Your task to perform on an android device: Add beats solo 3 to the cart on bestbuy.com, then select checkout. Image 0: 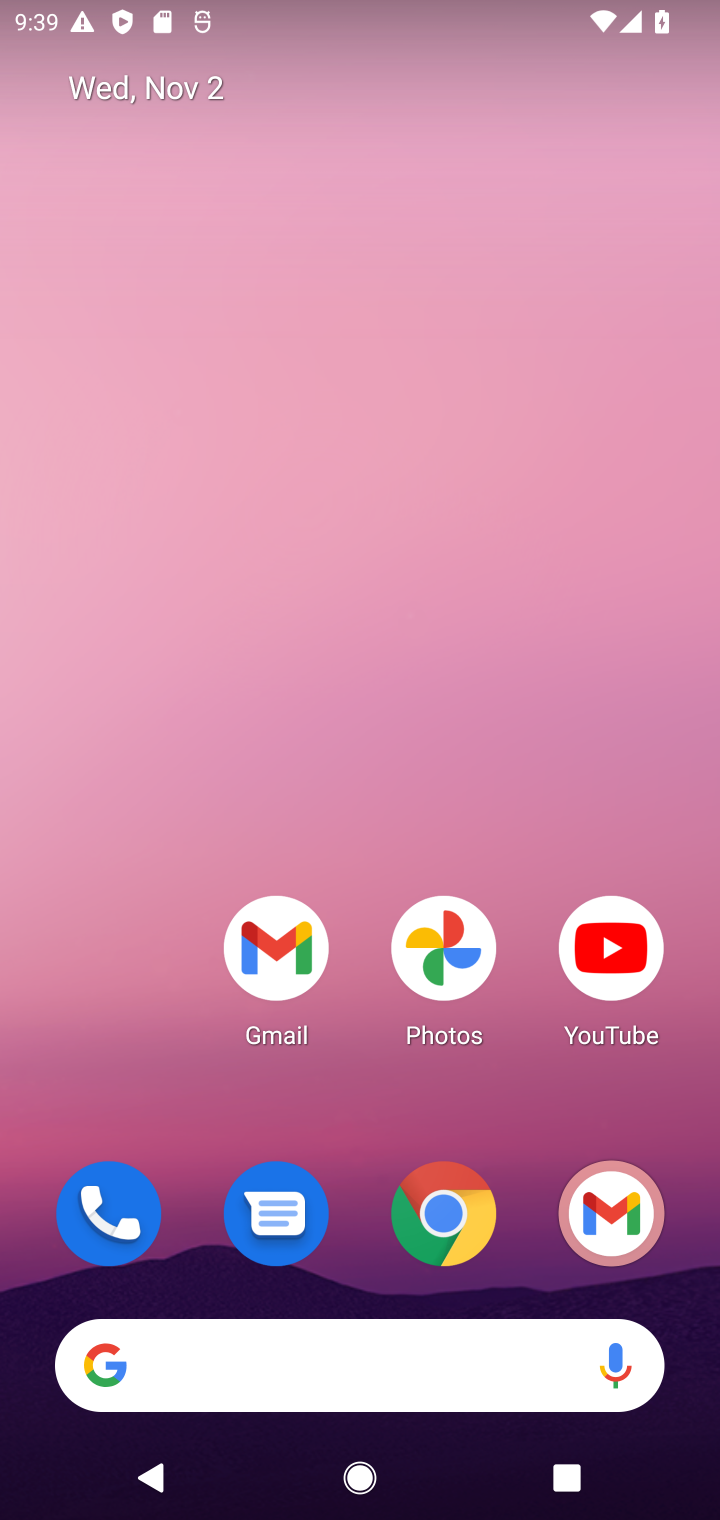
Step 0: click (441, 1217)
Your task to perform on an android device: Add beats solo 3 to the cart on bestbuy.com, then select checkout. Image 1: 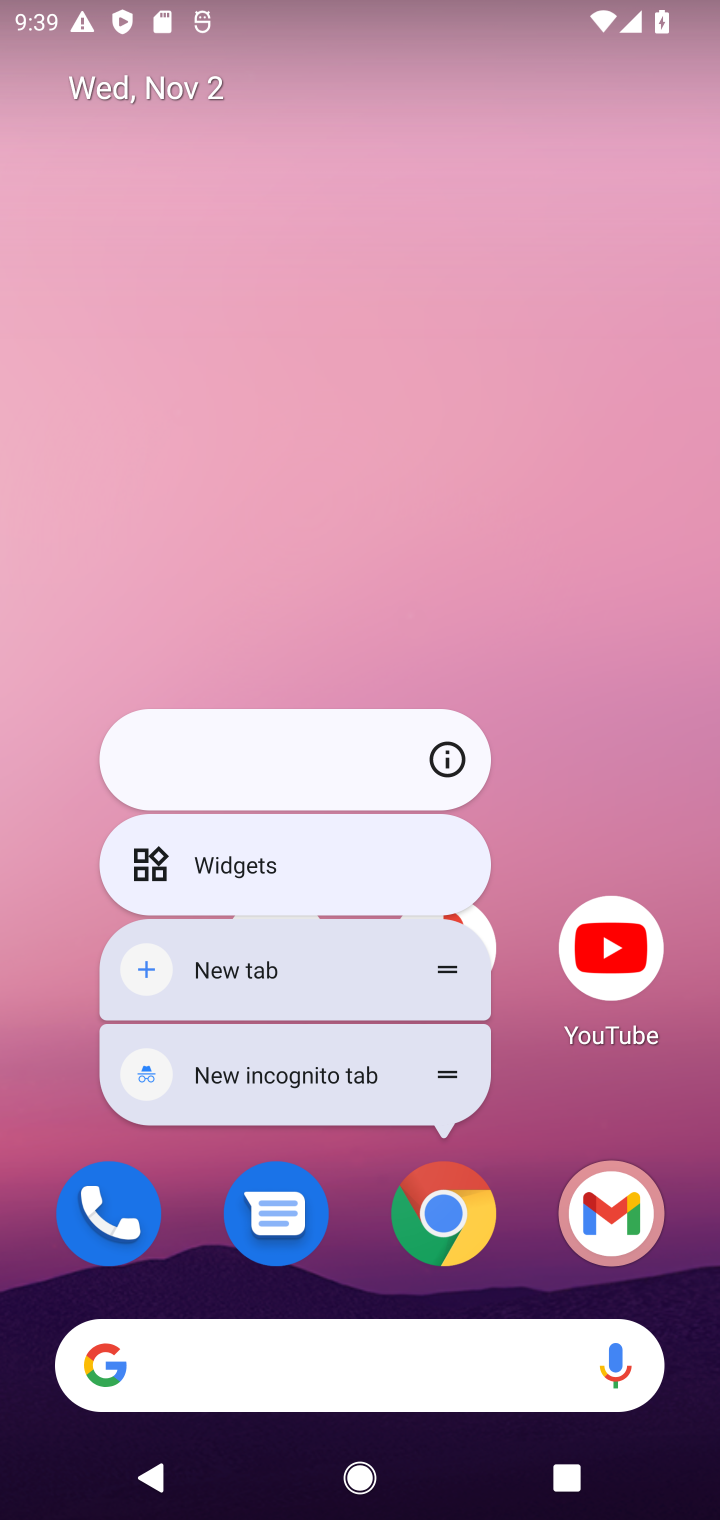
Step 1: click (441, 1217)
Your task to perform on an android device: Add beats solo 3 to the cart on bestbuy.com, then select checkout. Image 2: 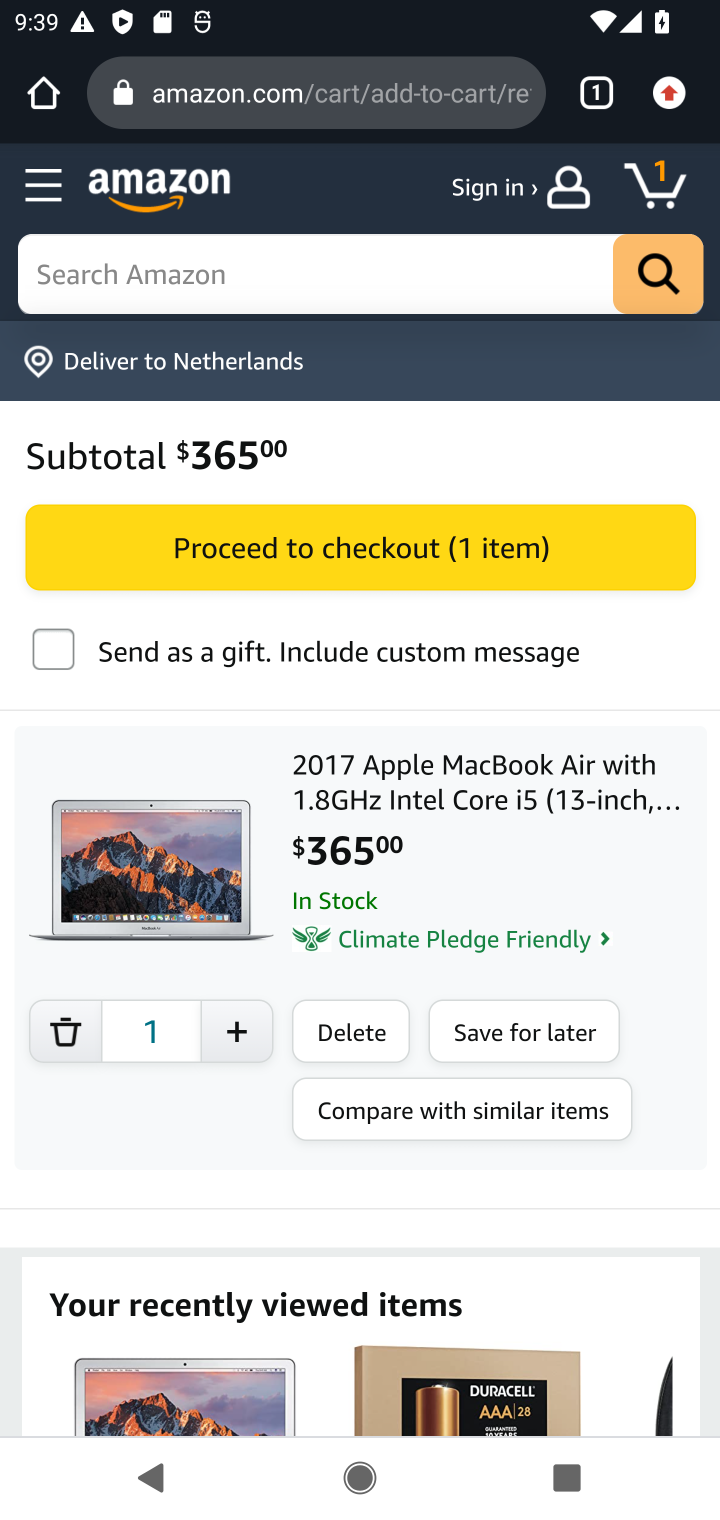
Step 2: click (257, 88)
Your task to perform on an android device: Add beats solo 3 to the cart on bestbuy.com, then select checkout. Image 3: 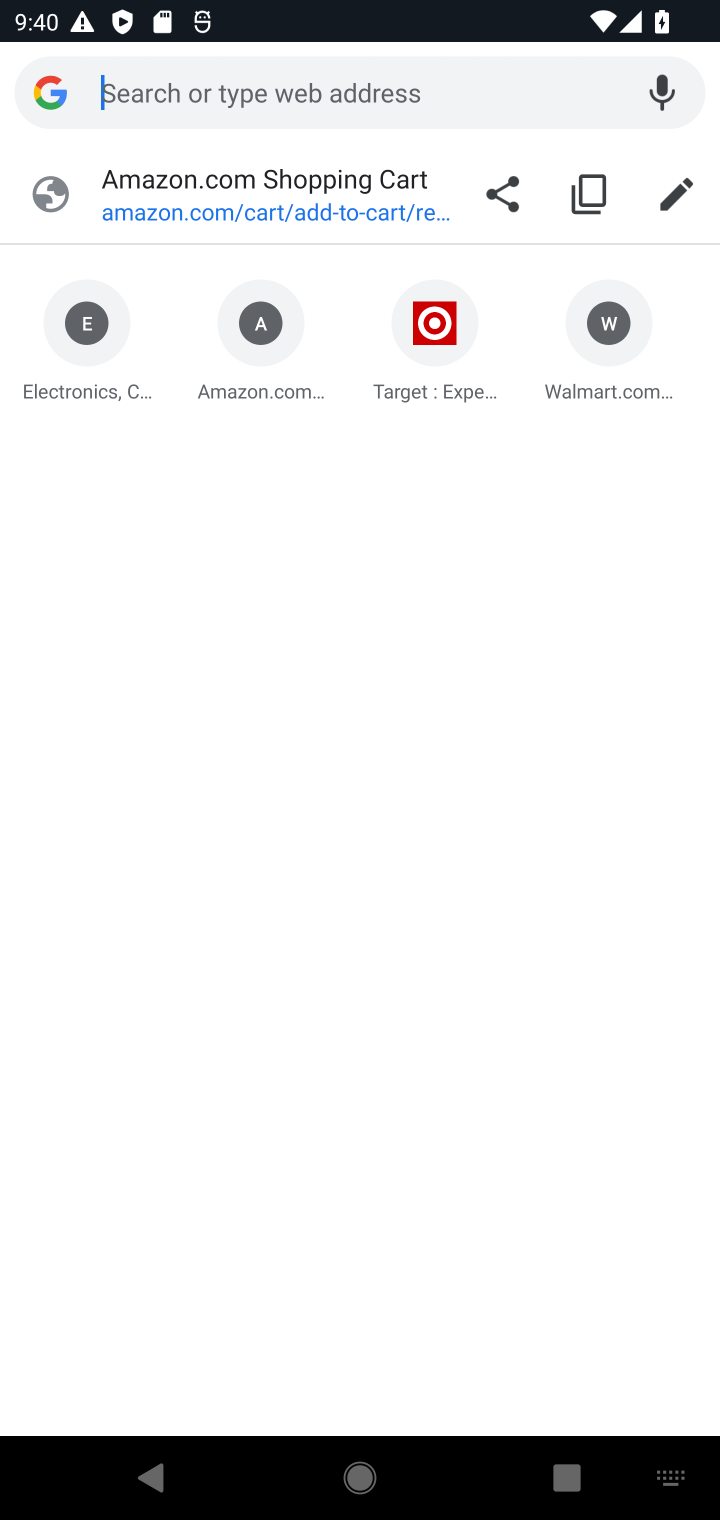
Step 3: type "bestbuy.com"
Your task to perform on an android device: Add beats solo 3 to the cart on bestbuy.com, then select checkout. Image 4: 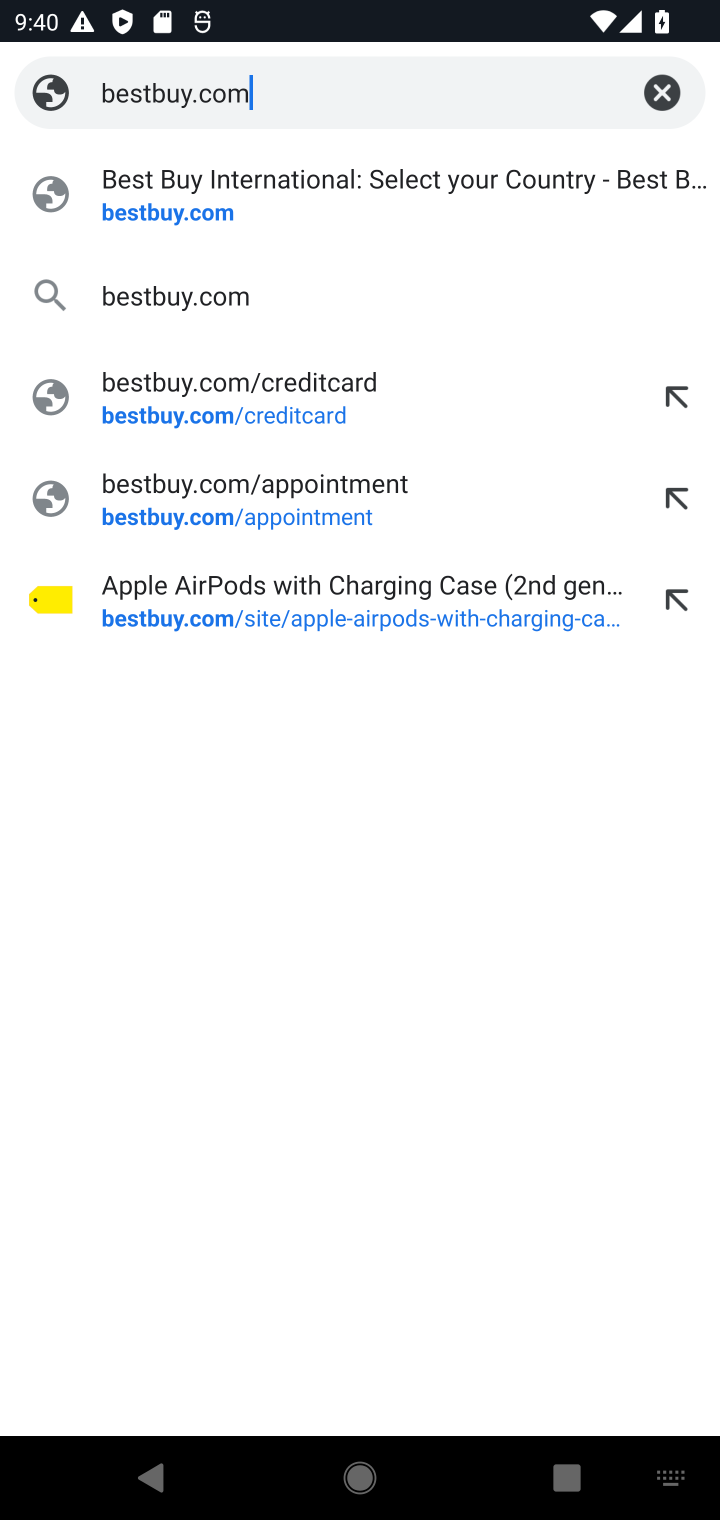
Step 4: click (154, 225)
Your task to perform on an android device: Add beats solo 3 to the cart on bestbuy.com, then select checkout. Image 5: 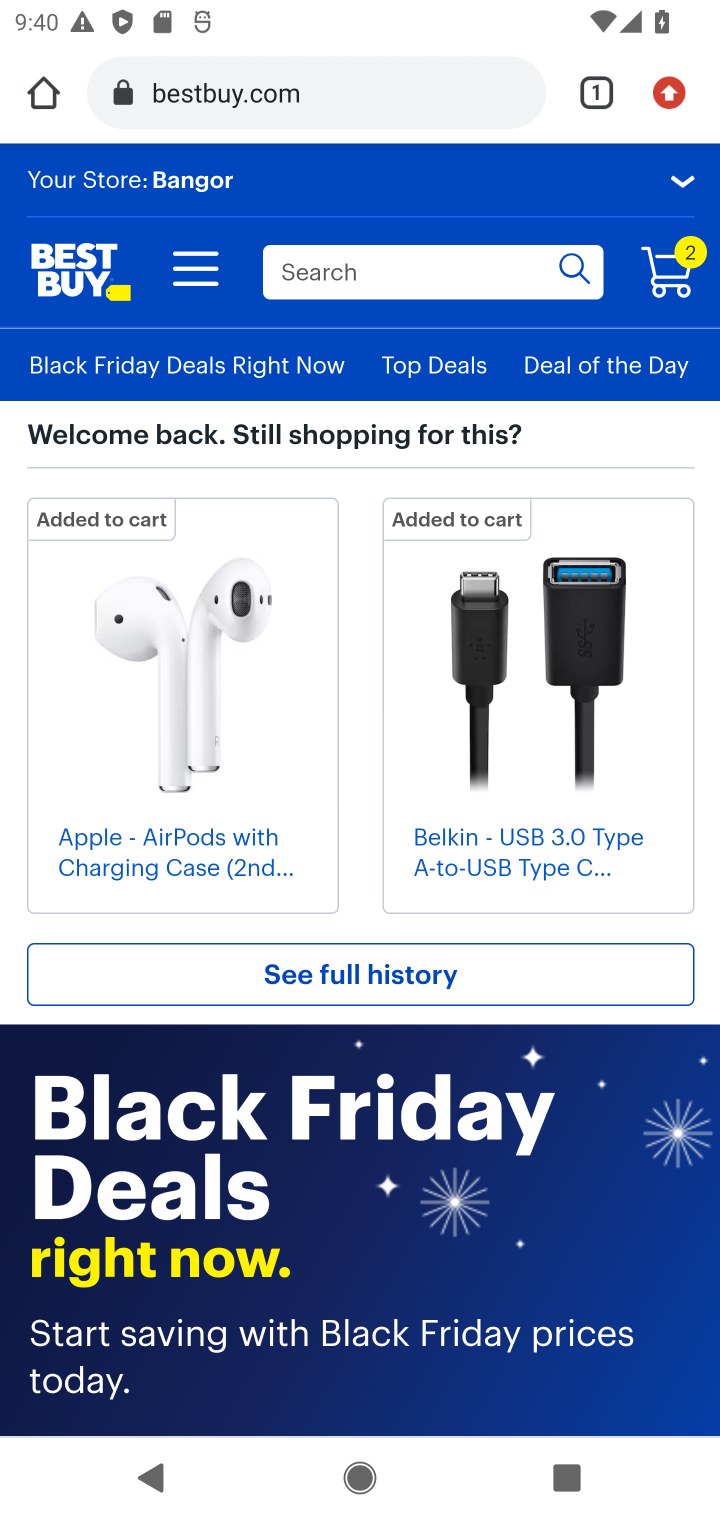
Step 5: click (360, 273)
Your task to perform on an android device: Add beats solo 3 to the cart on bestbuy.com, then select checkout. Image 6: 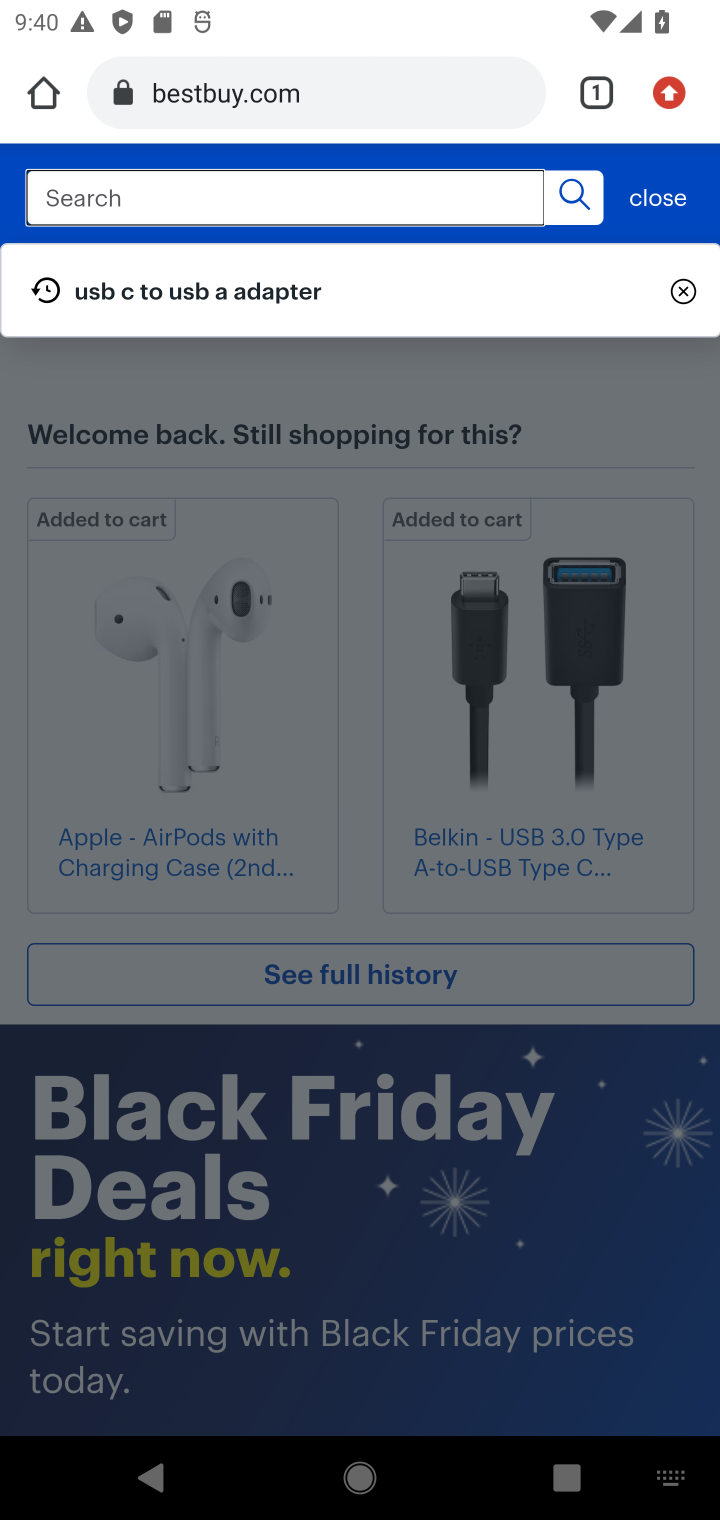
Step 6: type "beats solo 3"
Your task to perform on an android device: Add beats solo 3 to the cart on bestbuy.com, then select checkout. Image 7: 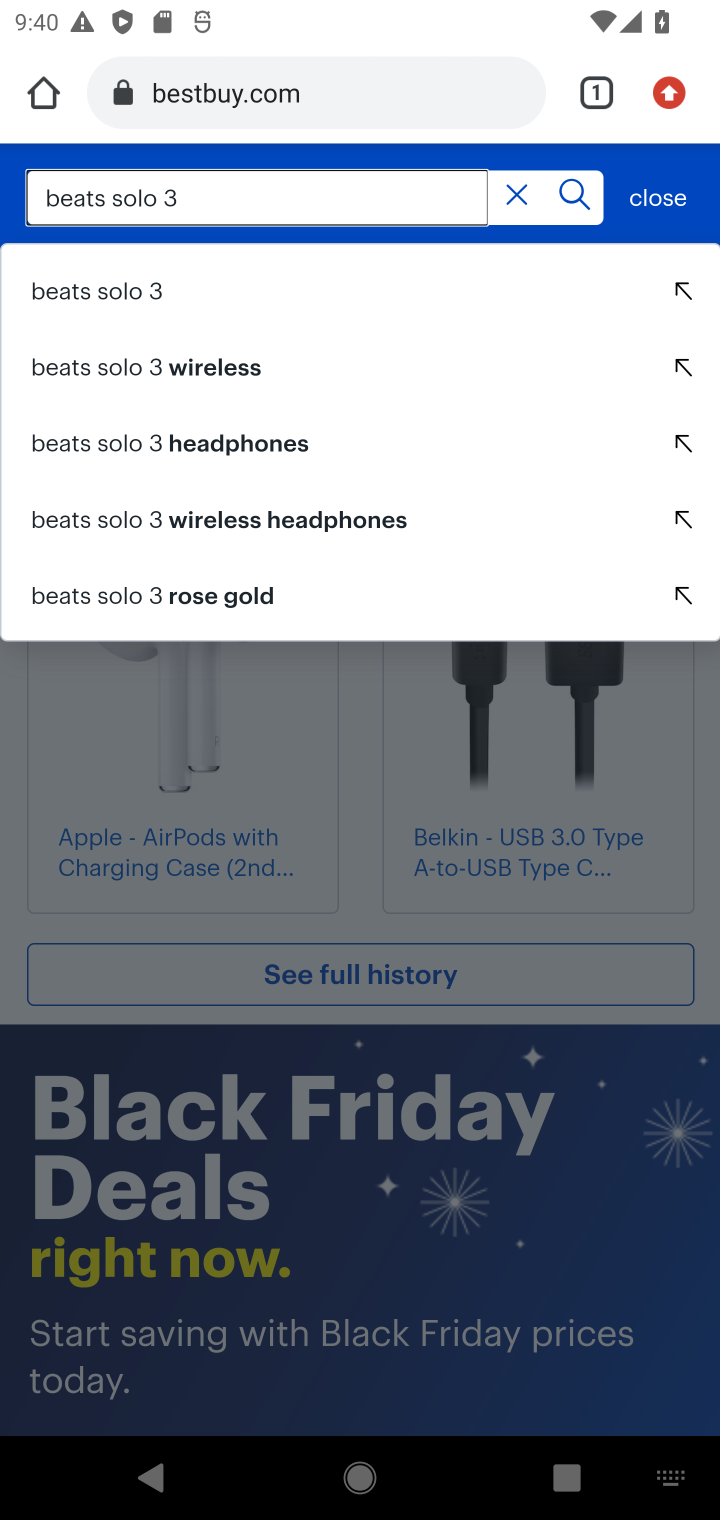
Step 7: click (86, 306)
Your task to perform on an android device: Add beats solo 3 to the cart on bestbuy.com, then select checkout. Image 8: 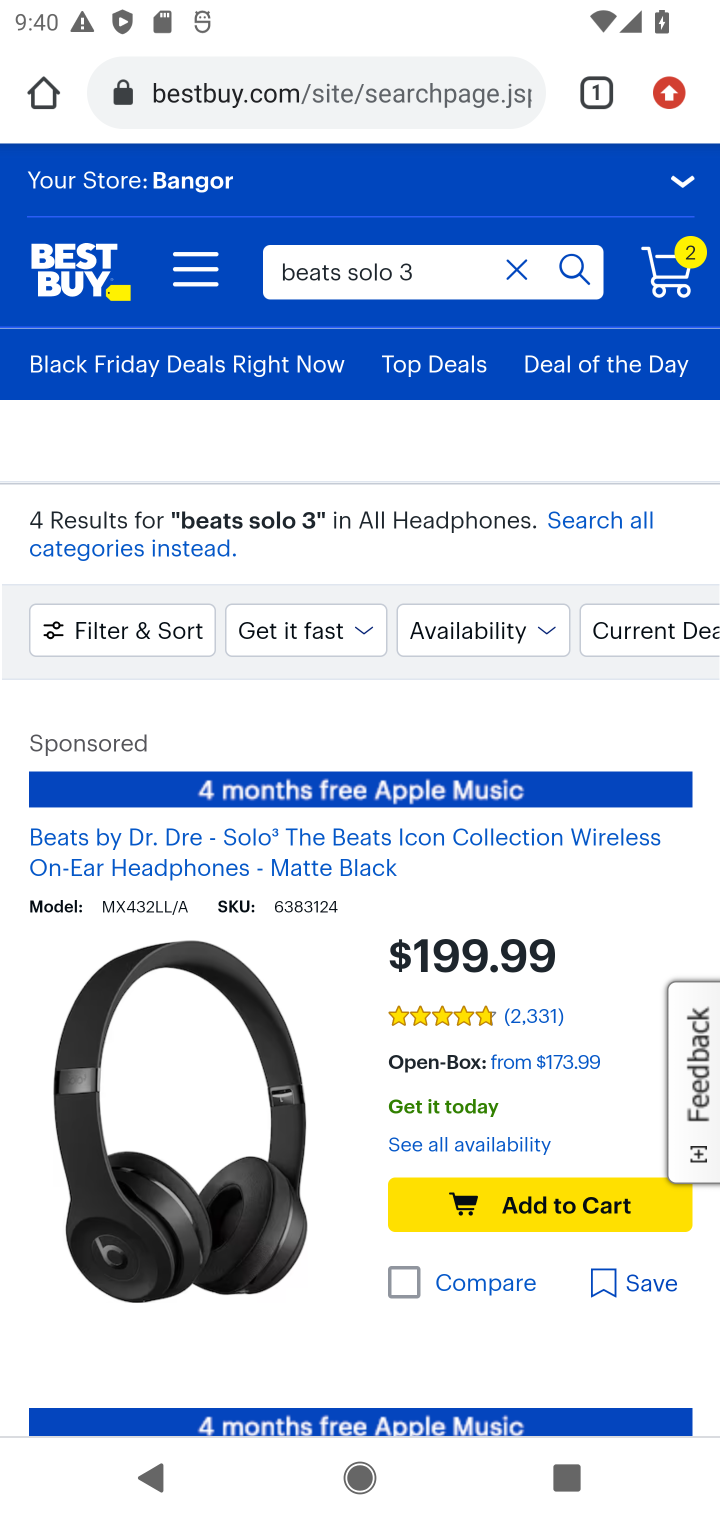
Step 8: click (356, 1040)
Your task to perform on an android device: Add beats solo 3 to the cart on bestbuy.com, then select checkout. Image 9: 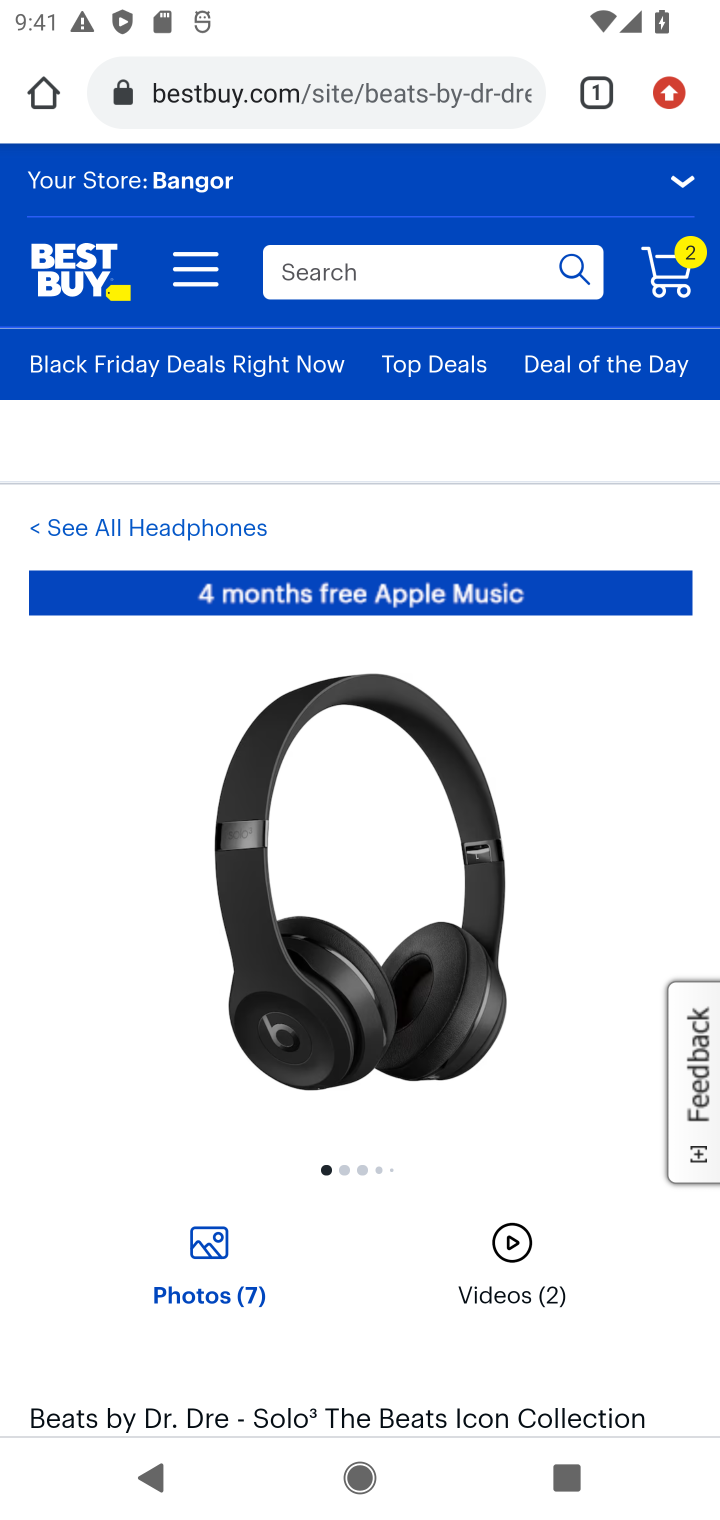
Step 9: drag from (526, 1115) to (534, 253)
Your task to perform on an android device: Add beats solo 3 to the cart on bestbuy.com, then select checkout. Image 10: 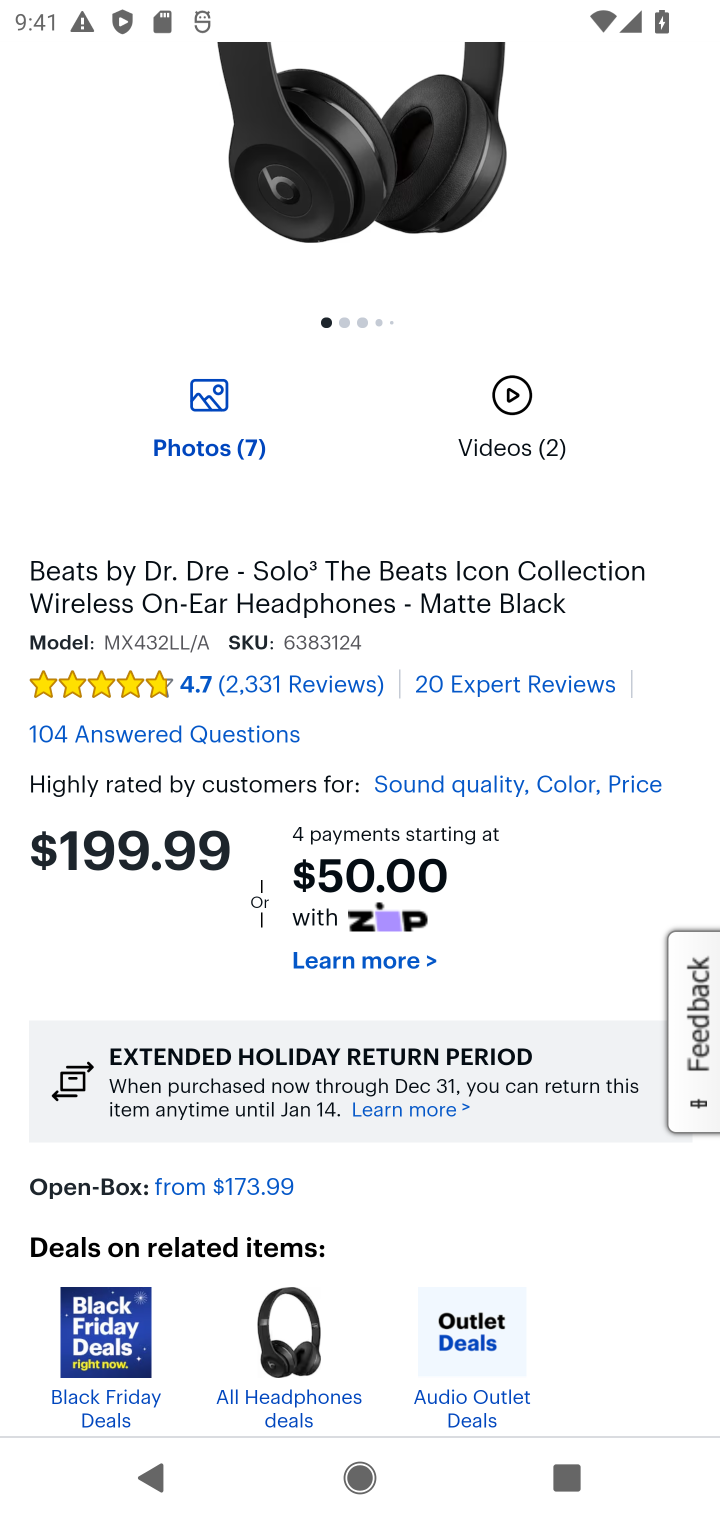
Step 10: drag from (443, 1084) to (441, 471)
Your task to perform on an android device: Add beats solo 3 to the cart on bestbuy.com, then select checkout. Image 11: 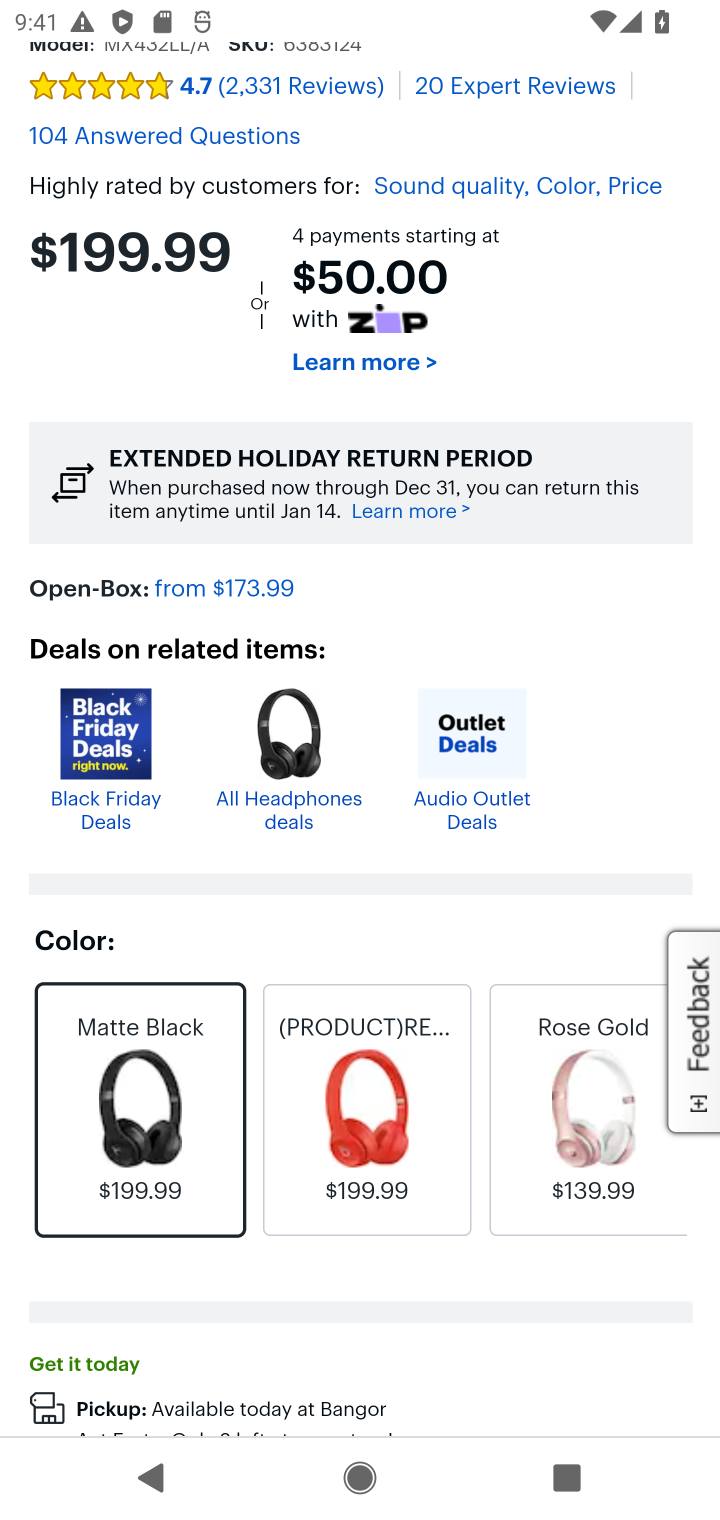
Step 11: drag from (449, 1192) to (423, 381)
Your task to perform on an android device: Add beats solo 3 to the cart on bestbuy.com, then select checkout. Image 12: 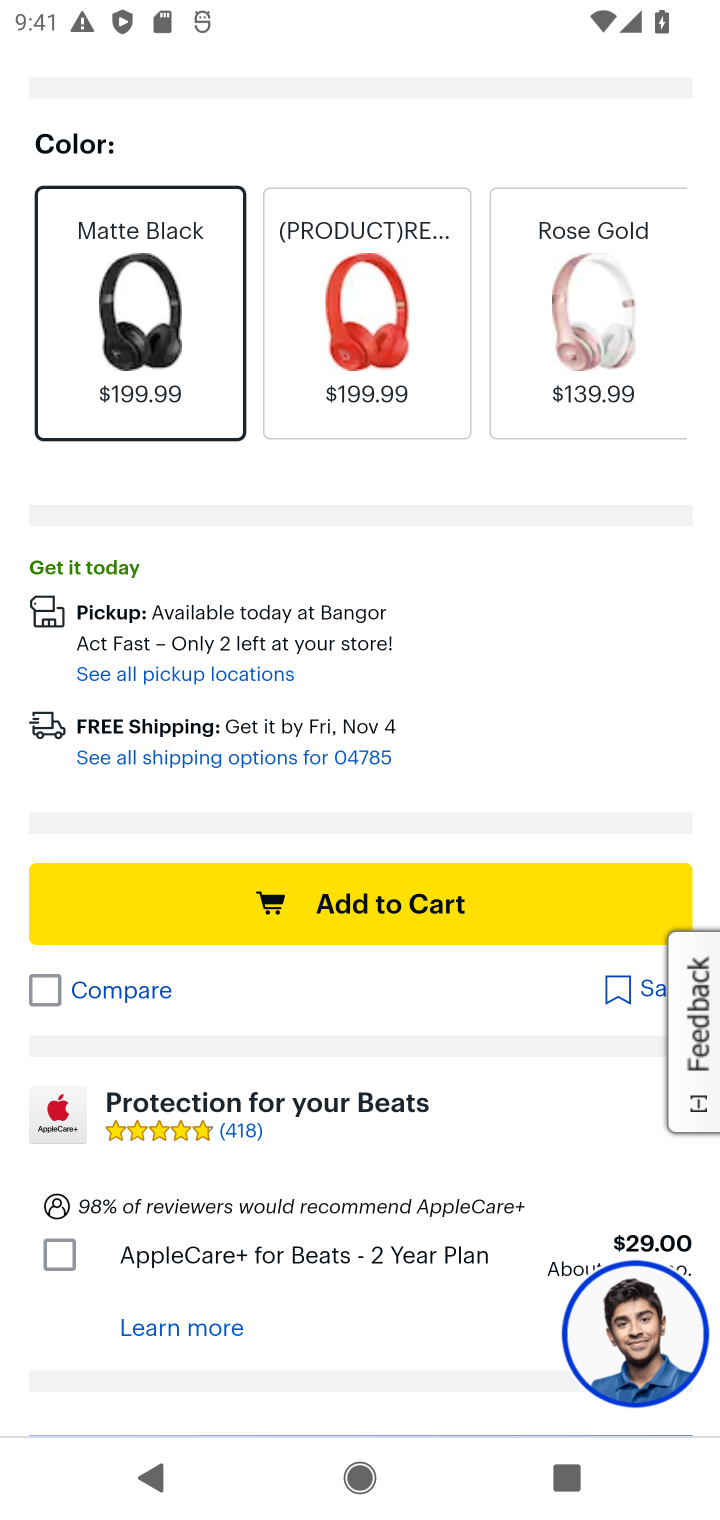
Step 12: click (392, 910)
Your task to perform on an android device: Add beats solo 3 to the cart on bestbuy.com, then select checkout. Image 13: 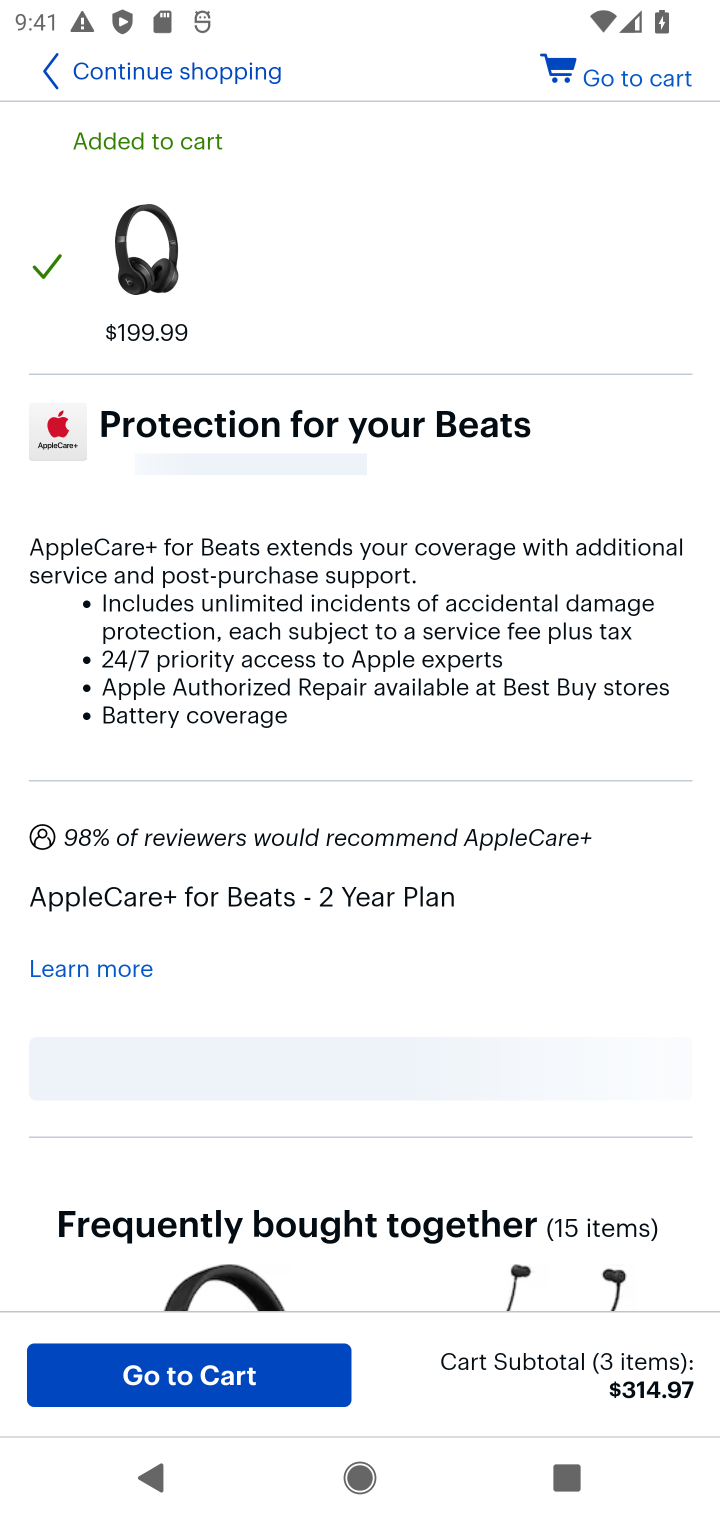
Step 13: click (628, 86)
Your task to perform on an android device: Add beats solo 3 to the cart on bestbuy.com, then select checkout. Image 14: 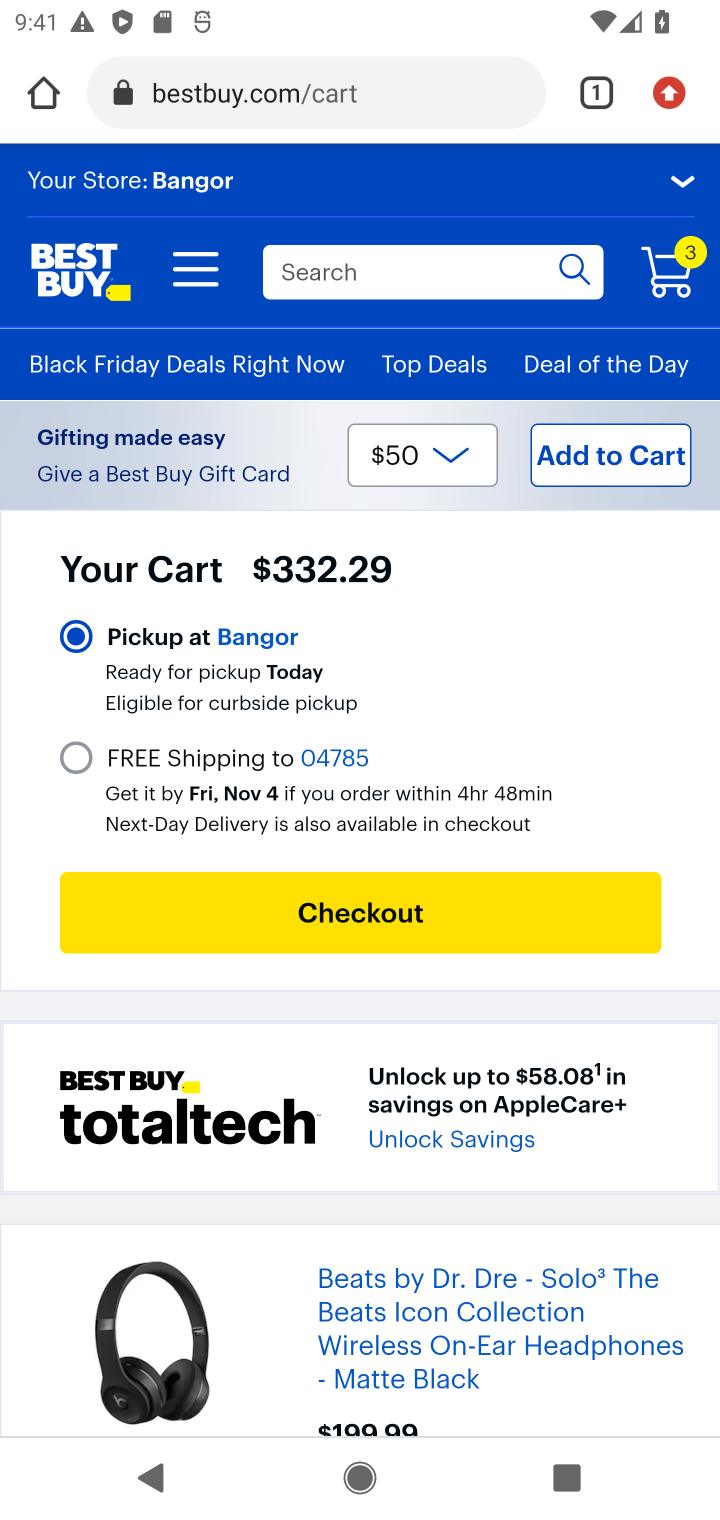
Step 14: click (366, 924)
Your task to perform on an android device: Add beats solo 3 to the cart on bestbuy.com, then select checkout. Image 15: 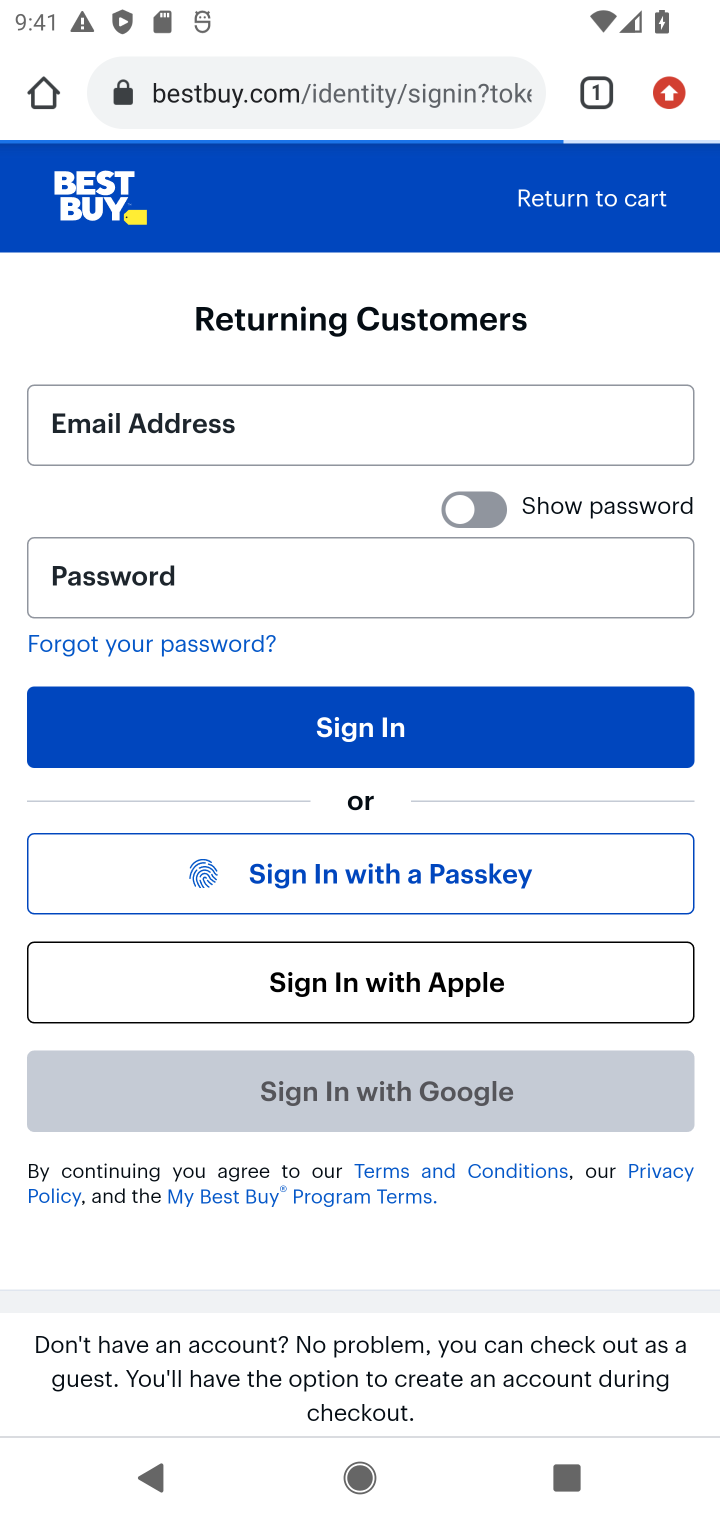
Step 15: task complete